Your task to perform on an android device: Search for top rated seafood restaurants on Google Maps Image 0: 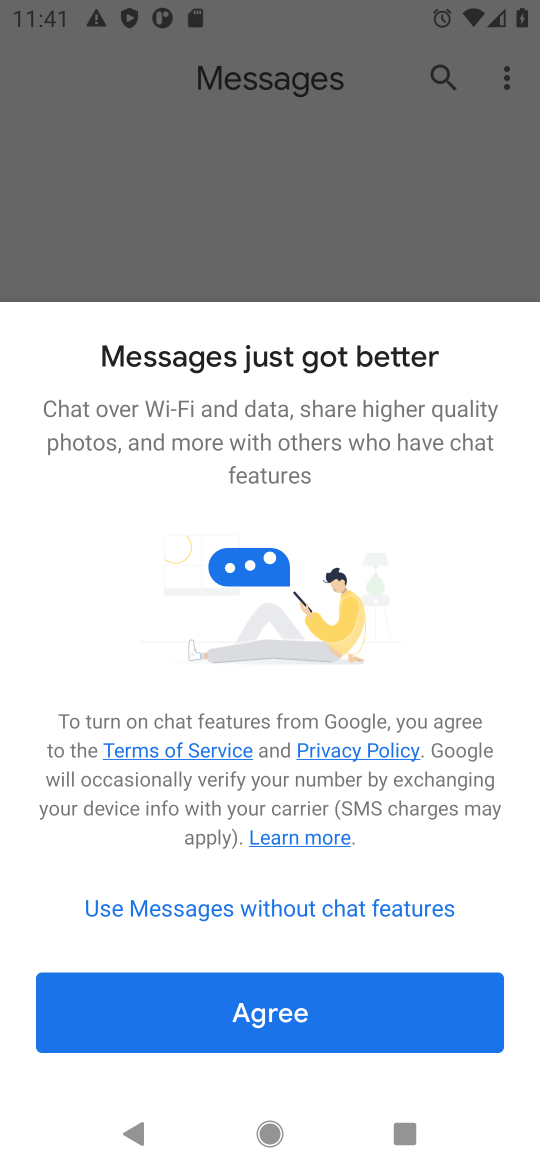
Step 0: press home button
Your task to perform on an android device: Search for top rated seafood restaurants on Google Maps Image 1: 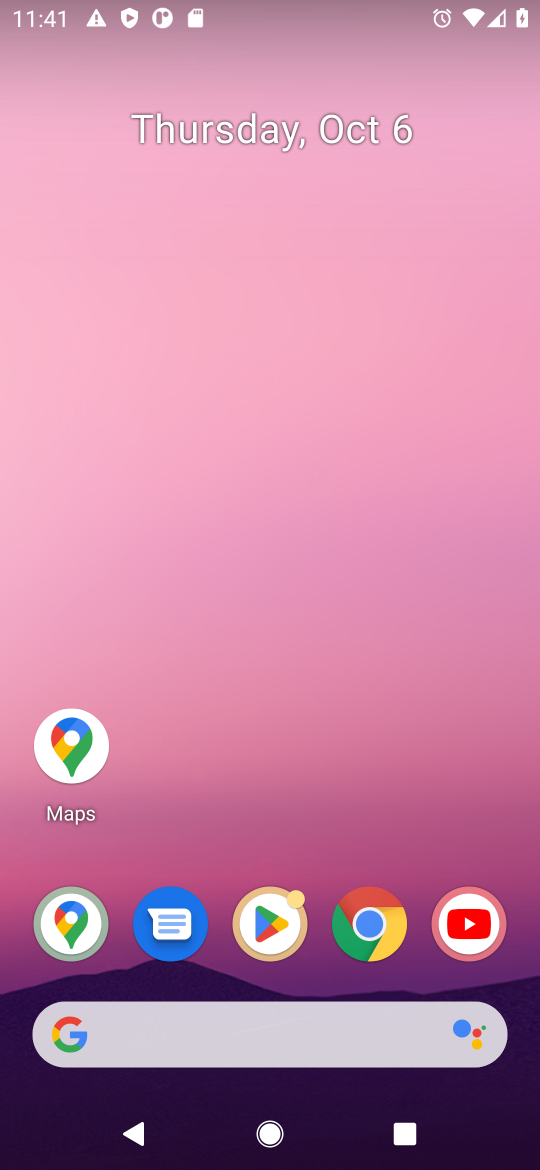
Step 1: click (69, 744)
Your task to perform on an android device: Search for top rated seafood restaurants on Google Maps Image 2: 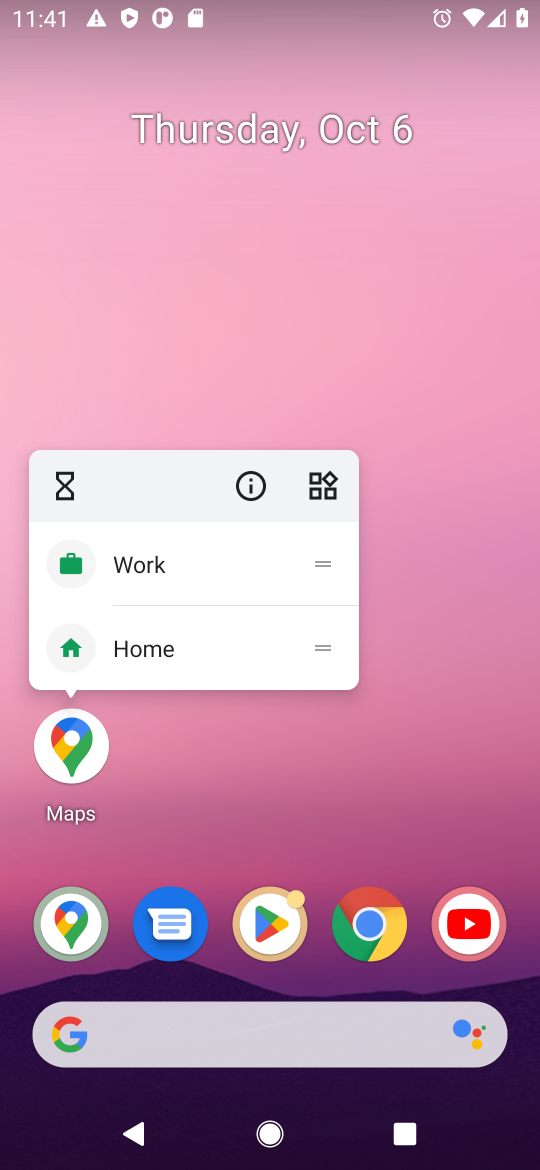
Step 2: click (69, 744)
Your task to perform on an android device: Search for top rated seafood restaurants on Google Maps Image 3: 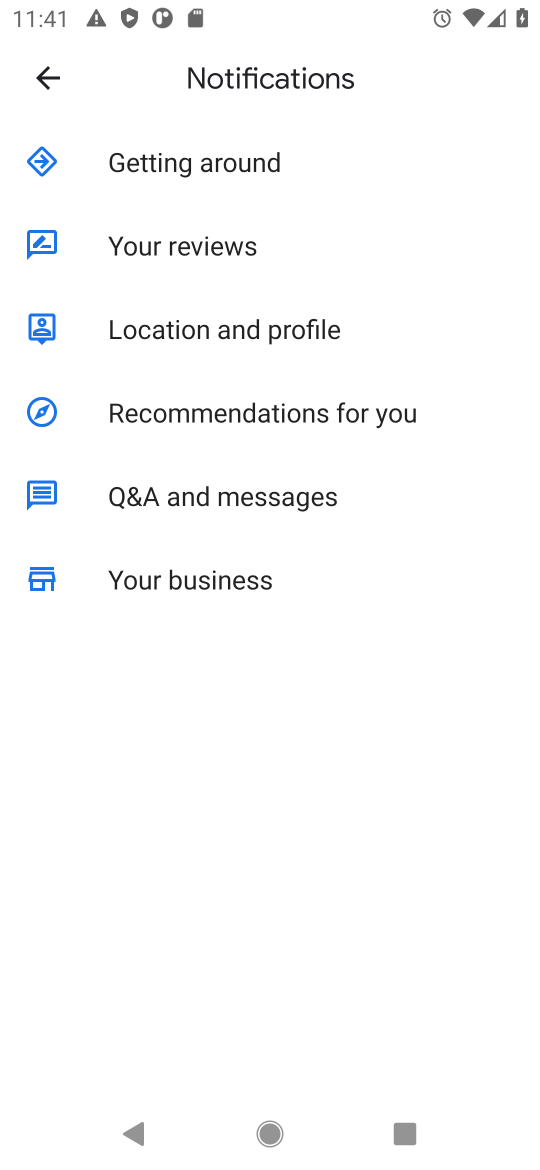
Step 3: click (50, 74)
Your task to perform on an android device: Search for top rated seafood restaurants on Google Maps Image 4: 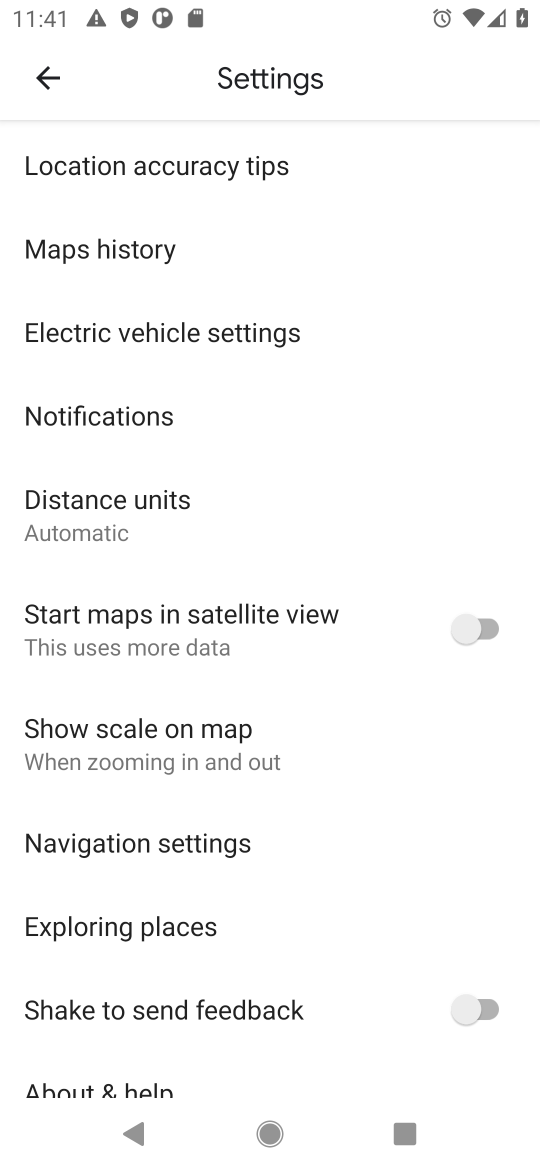
Step 4: click (45, 85)
Your task to perform on an android device: Search for top rated seafood restaurants on Google Maps Image 5: 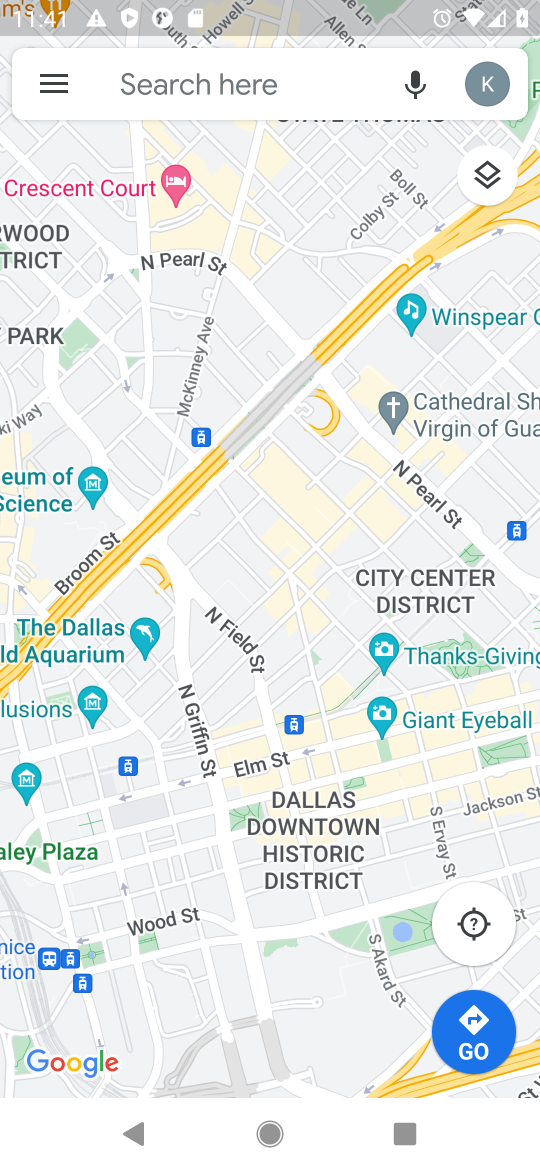
Step 5: click (258, 78)
Your task to perform on an android device: Search for top rated seafood restaurants on Google Maps Image 6: 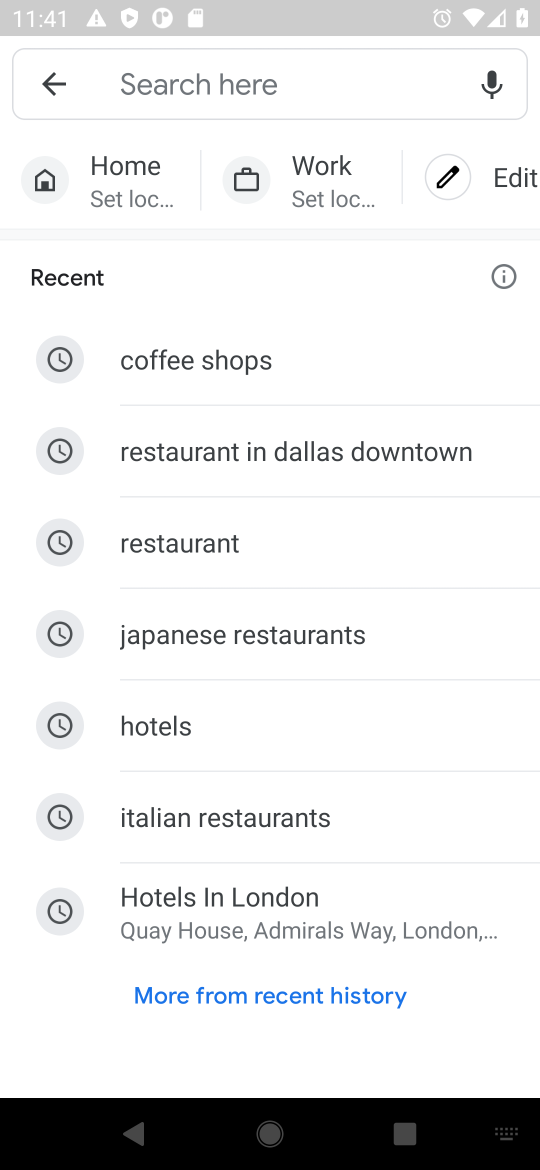
Step 6: type " seafood restaurants"
Your task to perform on an android device: Search for top rated seafood restaurants on Google Maps Image 7: 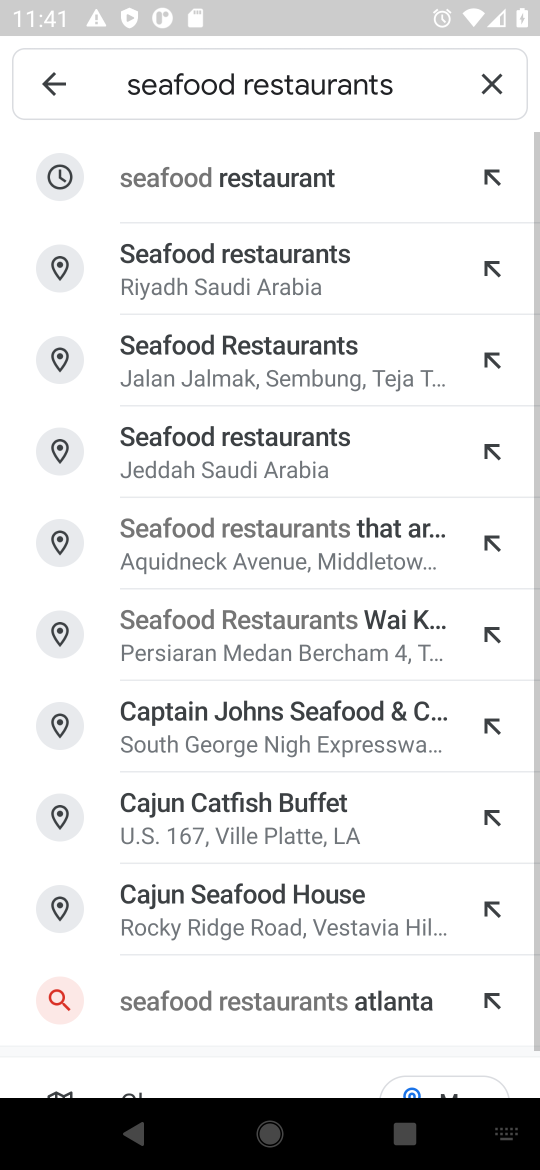
Step 7: click (283, 183)
Your task to perform on an android device: Search for top rated seafood restaurants on Google Maps Image 8: 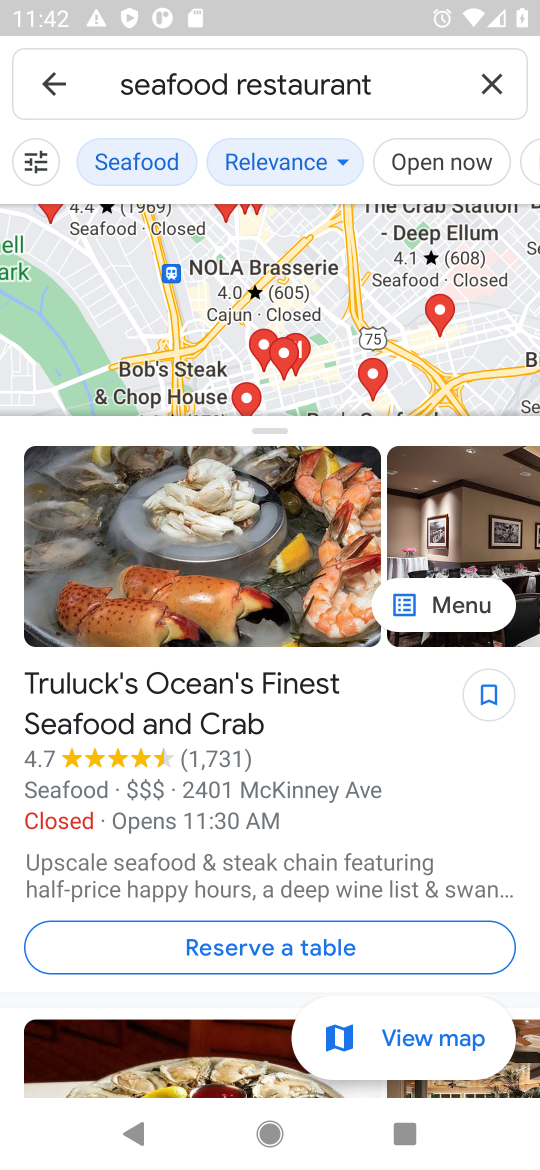
Step 8: task complete